Your task to perform on an android device: Go to internet settings Image 0: 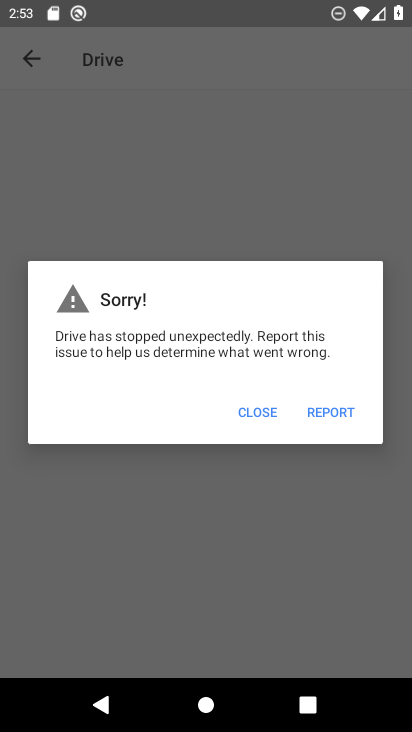
Step 0: press home button
Your task to perform on an android device: Go to internet settings Image 1: 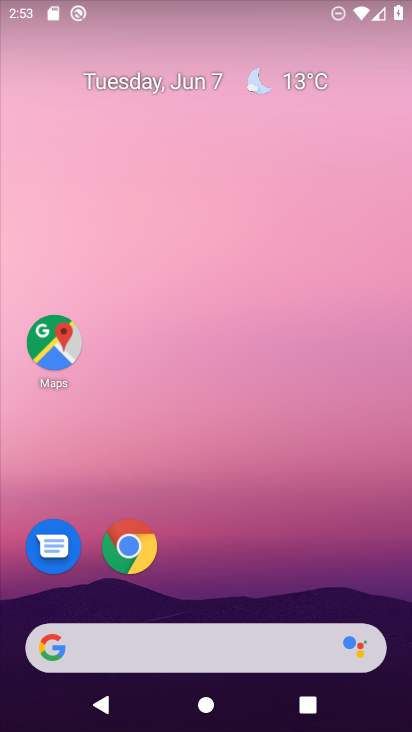
Step 1: drag from (298, 575) to (210, 28)
Your task to perform on an android device: Go to internet settings Image 2: 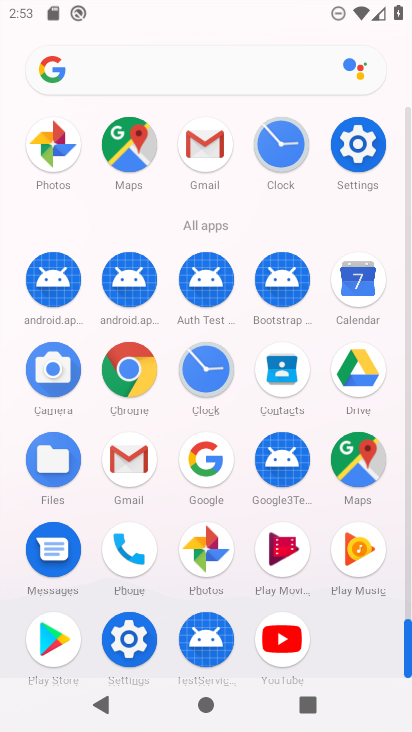
Step 2: drag from (10, 587) to (7, 166)
Your task to perform on an android device: Go to internet settings Image 3: 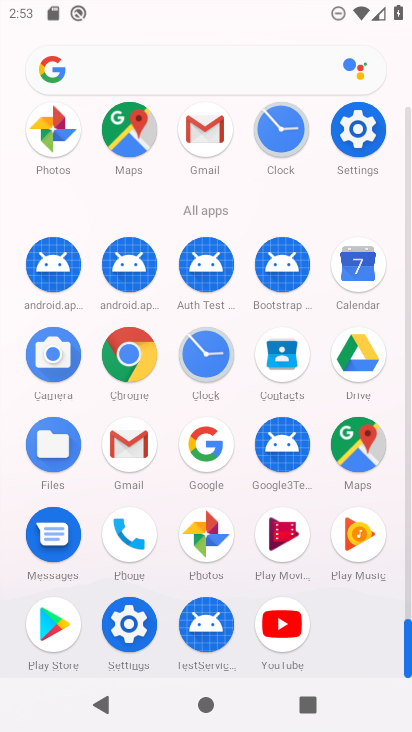
Step 3: click (126, 629)
Your task to perform on an android device: Go to internet settings Image 4: 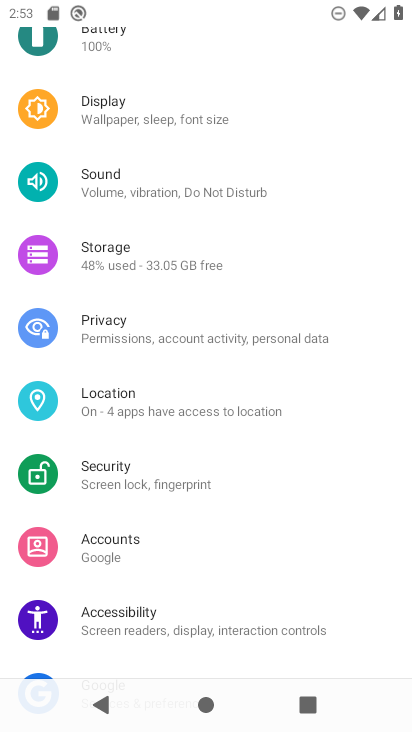
Step 4: drag from (294, 168) to (300, 623)
Your task to perform on an android device: Go to internet settings Image 5: 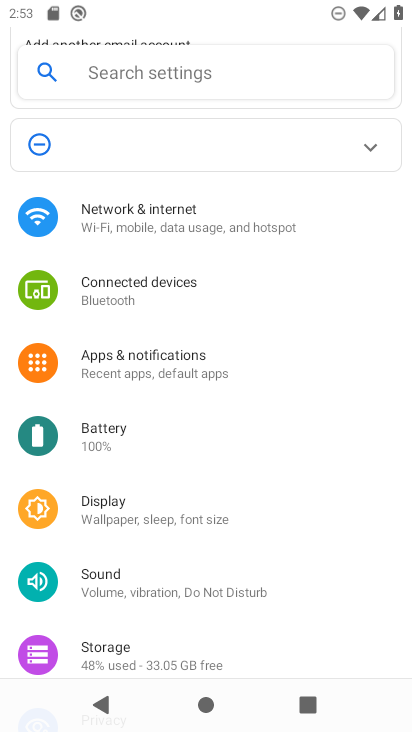
Step 5: drag from (288, 268) to (277, 524)
Your task to perform on an android device: Go to internet settings Image 6: 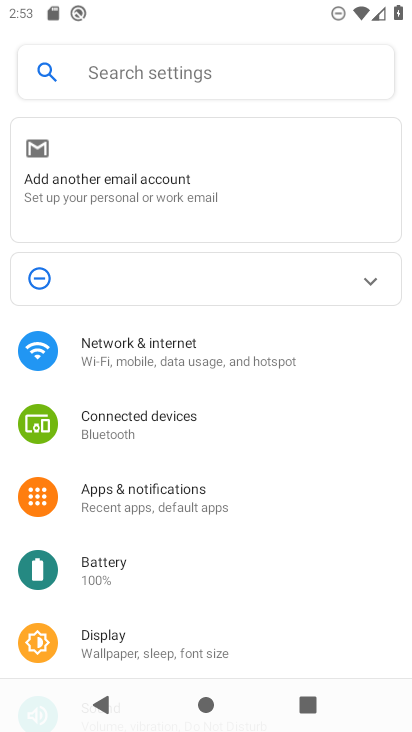
Step 6: click (220, 360)
Your task to perform on an android device: Go to internet settings Image 7: 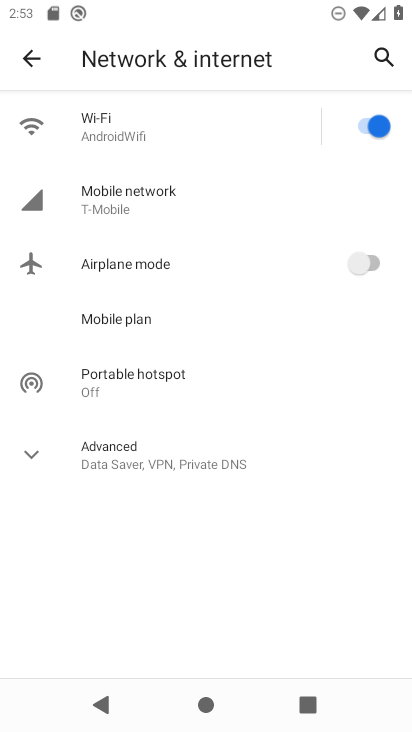
Step 7: click (156, 205)
Your task to perform on an android device: Go to internet settings Image 8: 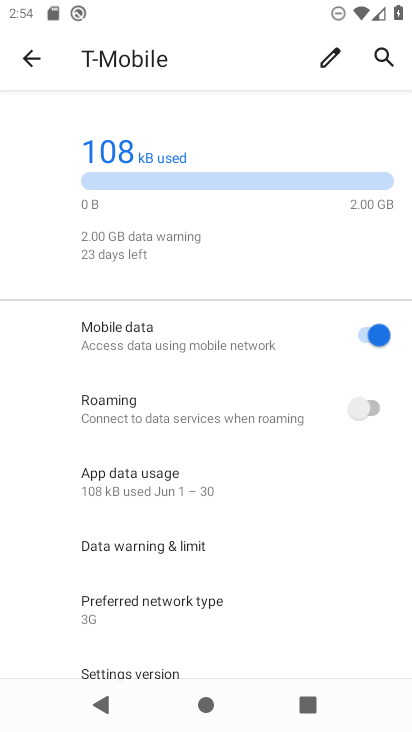
Step 8: click (33, 52)
Your task to perform on an android device: Go to internet settings Image 9: 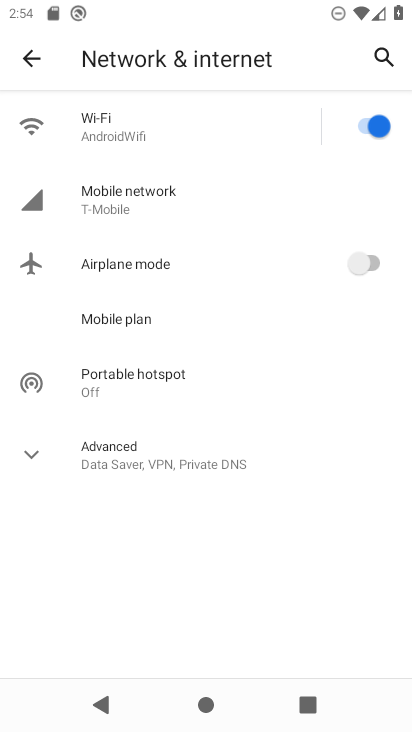
Step 9: click (27, 455)
Your task to perform on an android device: Go to internet settings Image 10: 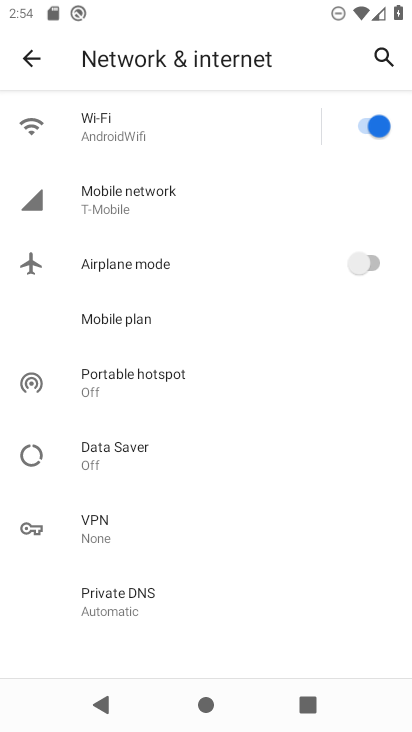
Step 10: task complete